Your task to perform on an android device: open chrome and create a bookmark for the current page Image 0: 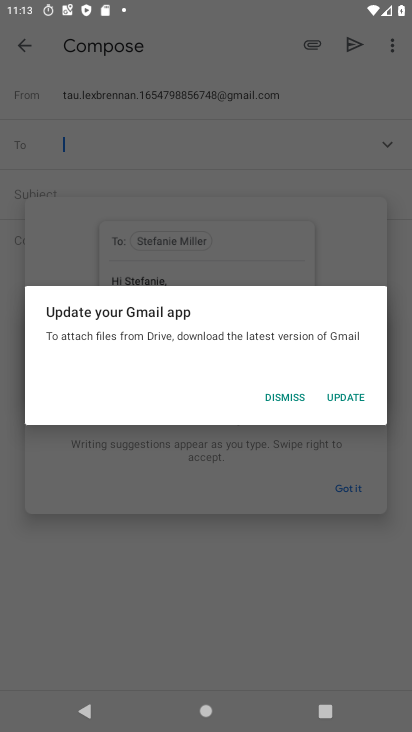
Step 0: click (271, 396)
Your task to perform on an android device: open chrome and create a bookmark for the current page Image 1: 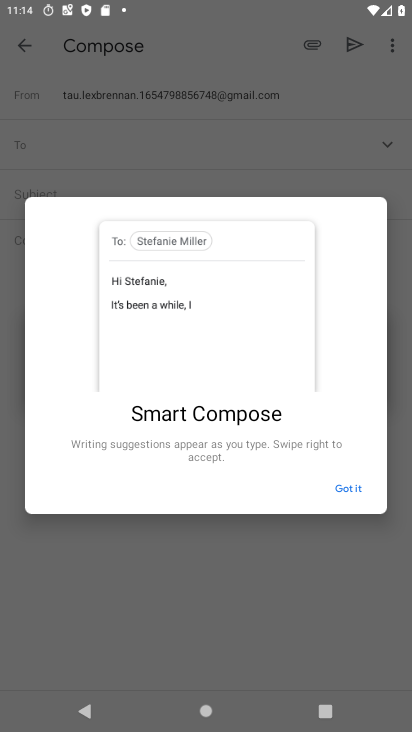
Step 1: press home button
Your task to perform on an android device: open chrome and create a bookmark for the current page Image 2: 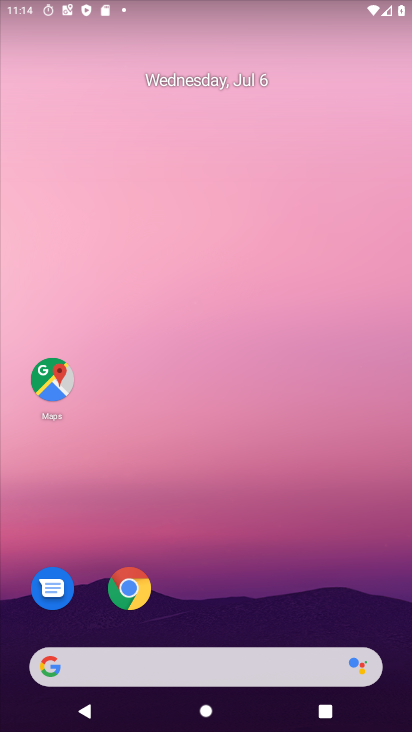
Step 2: drag from (256, 719) to (272, 87)
Your task to perform on an android device: open chrome and create a bookmark for the current page Image 3: 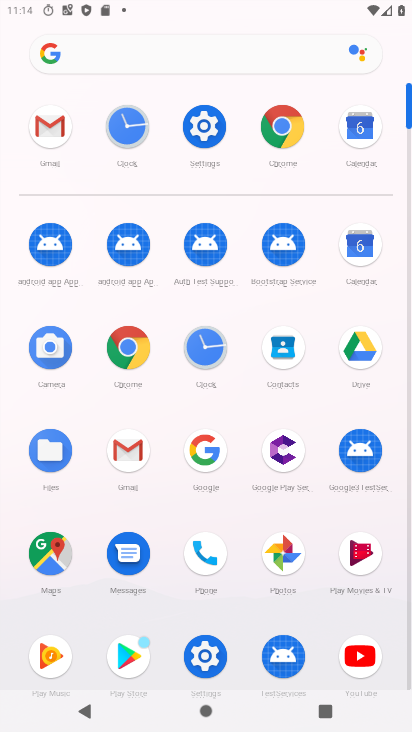
Step 3: click (278, 128)
Your task to perform on an android device: open chrome and create a bookmark for the current page Image 4: 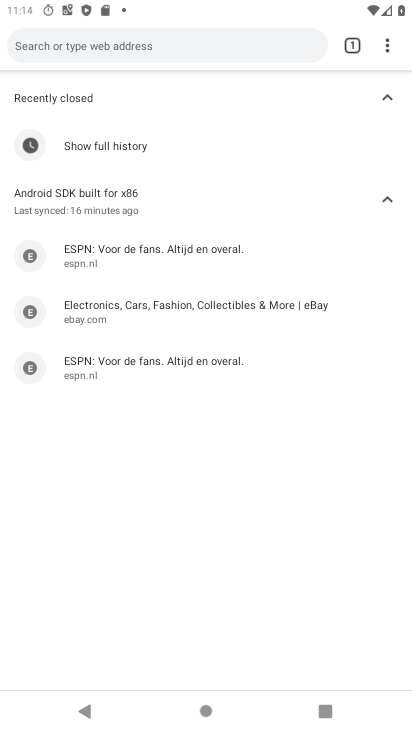
Step 4: click (388, 48)
Your task to perform on an android device: open chrome and create a bookmark for the current page Image 5: 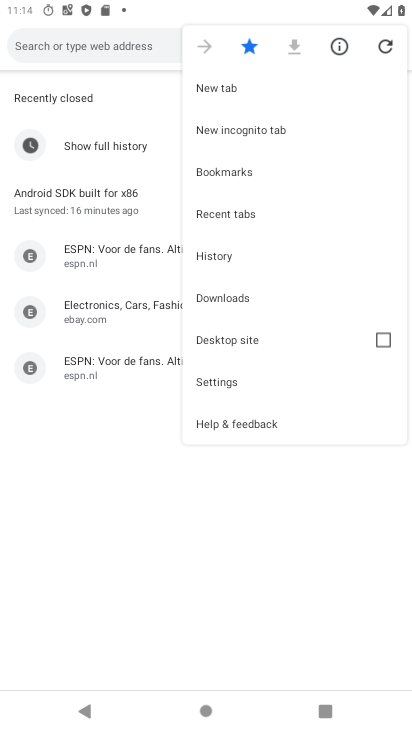
Step 5: task complete